Your task to perform on an android device: Open Yahoo.com Image 0: 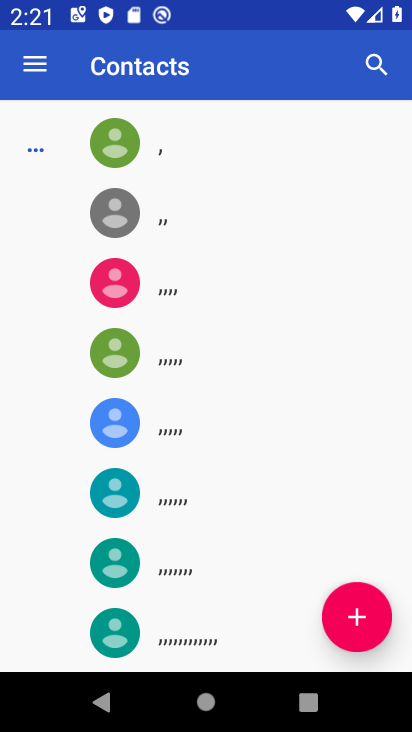
Step 0: press home button
Your task to perform on an android device: Open Yahoo.com Image 1: 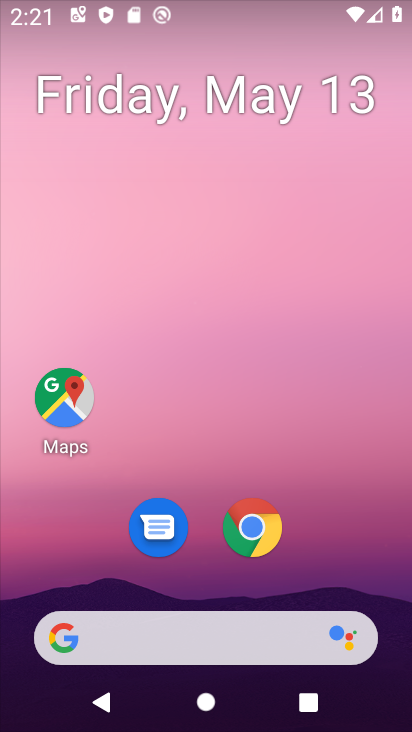
Step 1: click (255, 525)
Your task to perform on an android device: Open Yahoo.com Image 2: 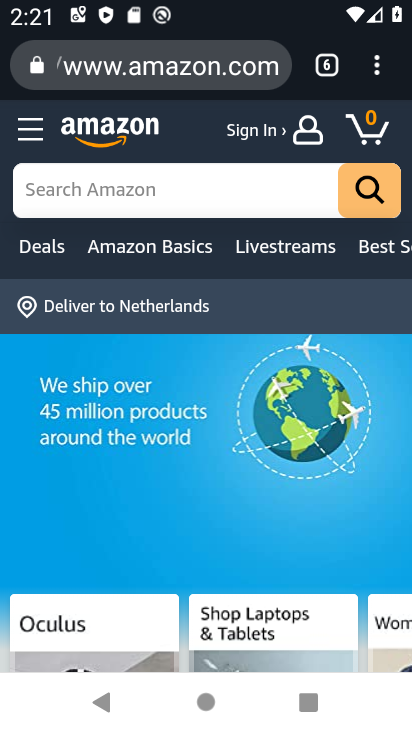
Step 2: click (328, 76)
Your task to perform on an android device: Open Yahoo.com Image 3: 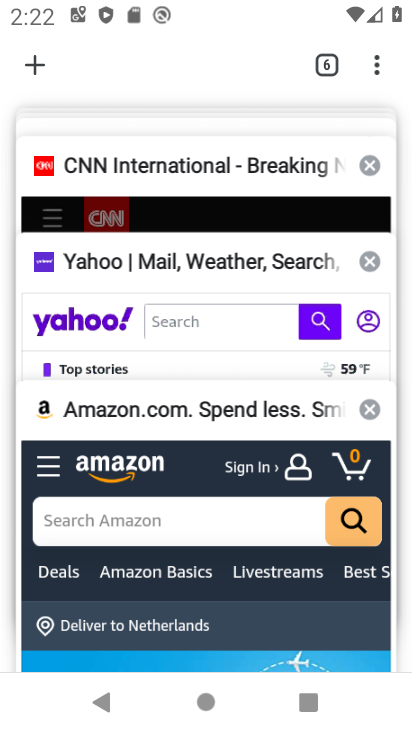
Step 3: click (230, 319)
Your task to perform on an android device: Open Yahoo.com Image 4: 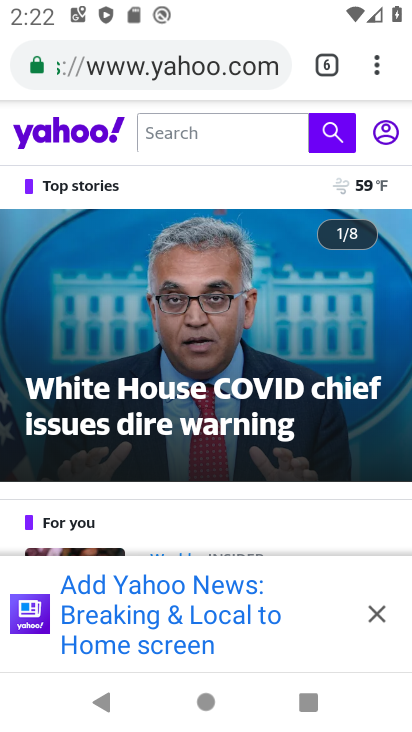
Step 4: task complete